Your task to perform on an android device: Open Google Image 0: 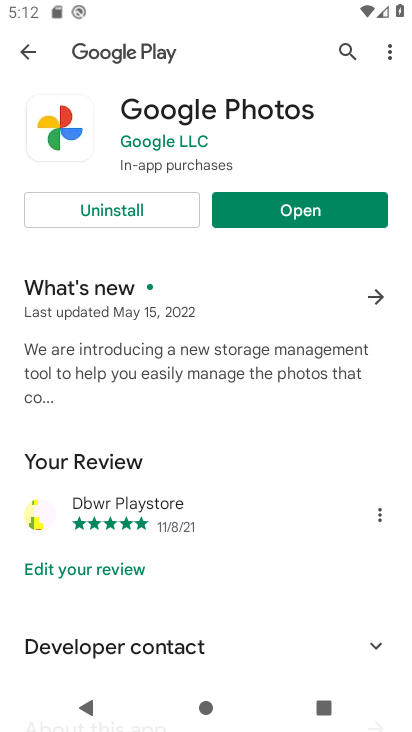
Step 0: press home button
Your task to perform on an android device: Open Google Image 1: 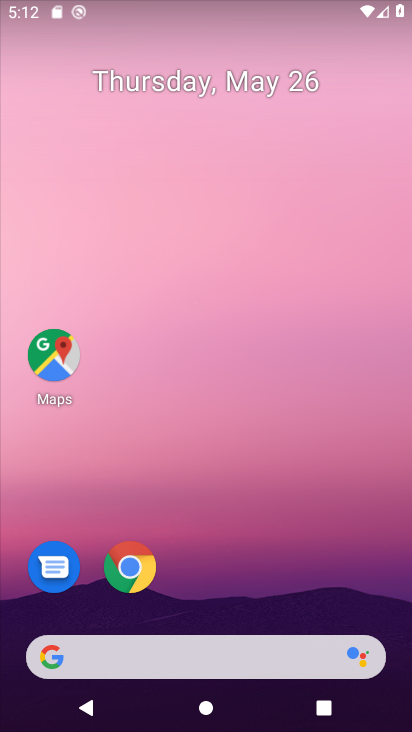
Step 1: drag from (326, 540) to (323, 165)
Your task to perform on an android device: Open Google Image 2: 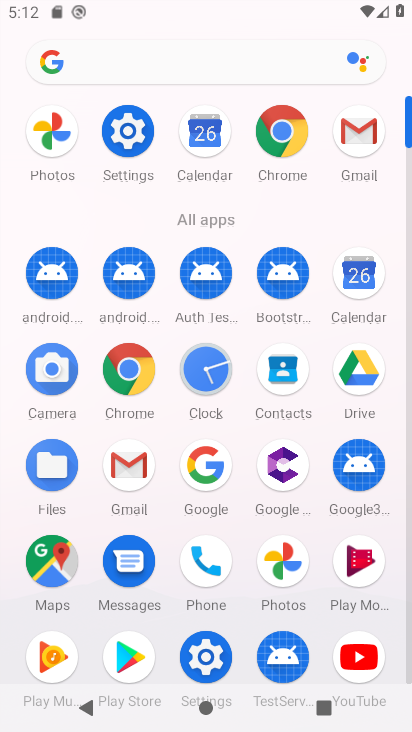
Step 2: click (208, 462)
Your task to perform on an android device: Open Google Image 3: 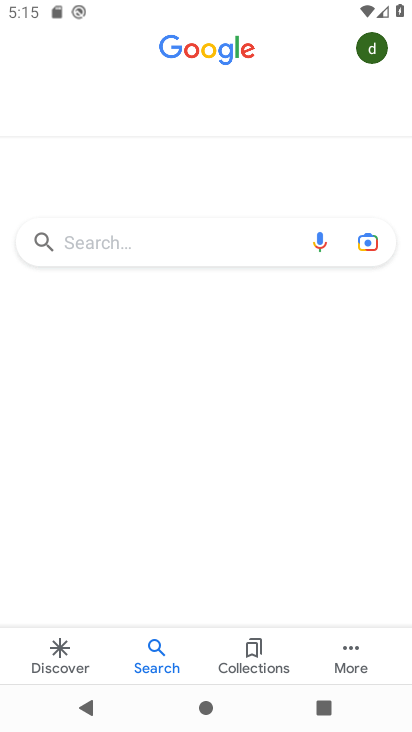
Step 3: task complete